Your task to perform on an android device: What's the news this month? Image 0: 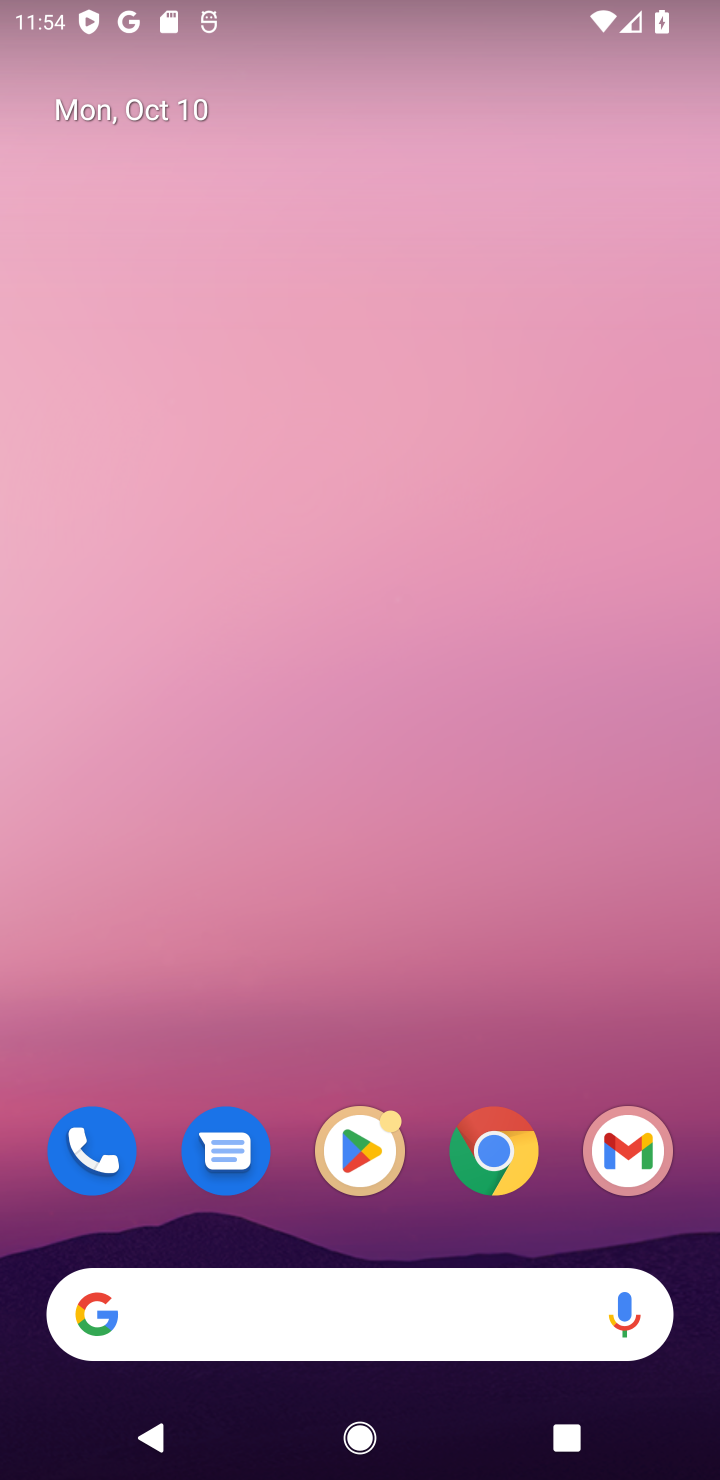
Step 0: click (317, 1300)
Your task to perform on an android device: What's the news this month? Image 1: 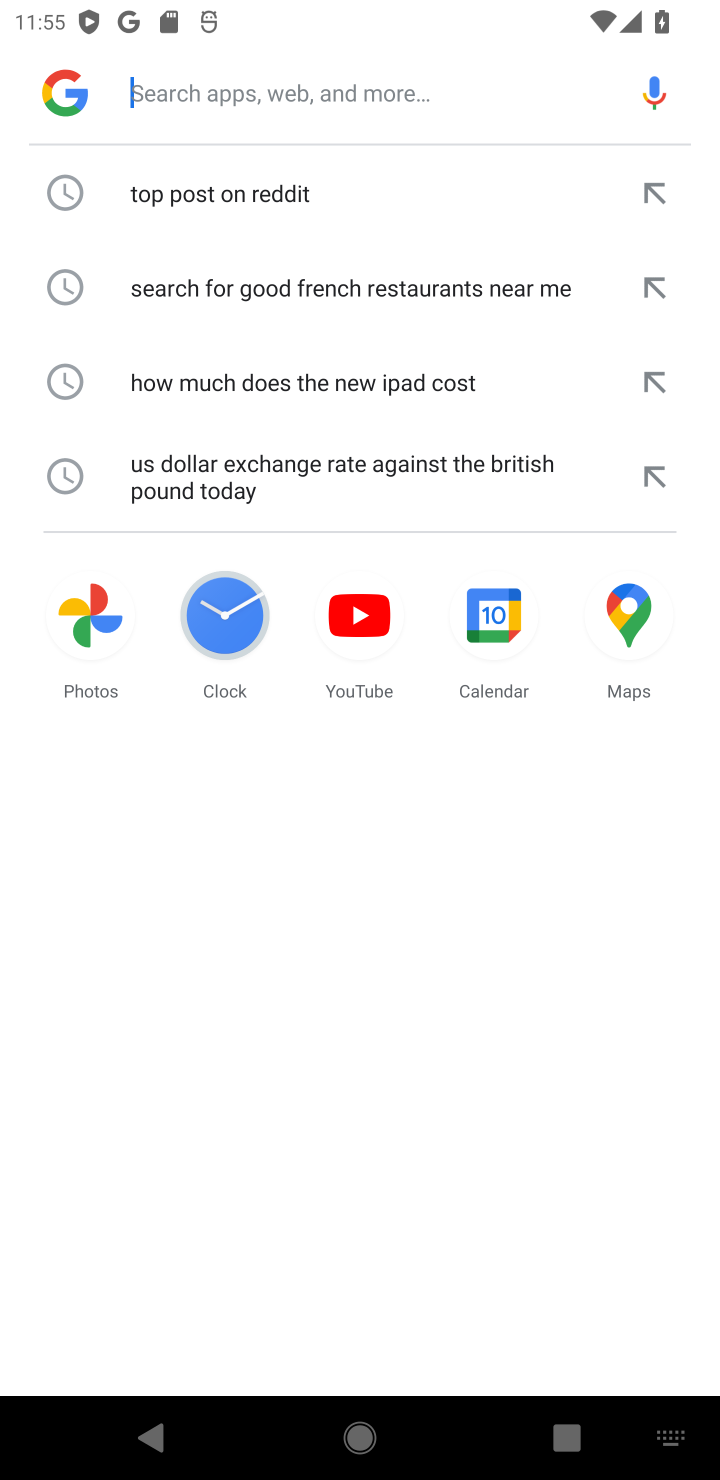
Step 1: type "news this month?"
Your task to perform on an android device: What's the news this month? Image 2: 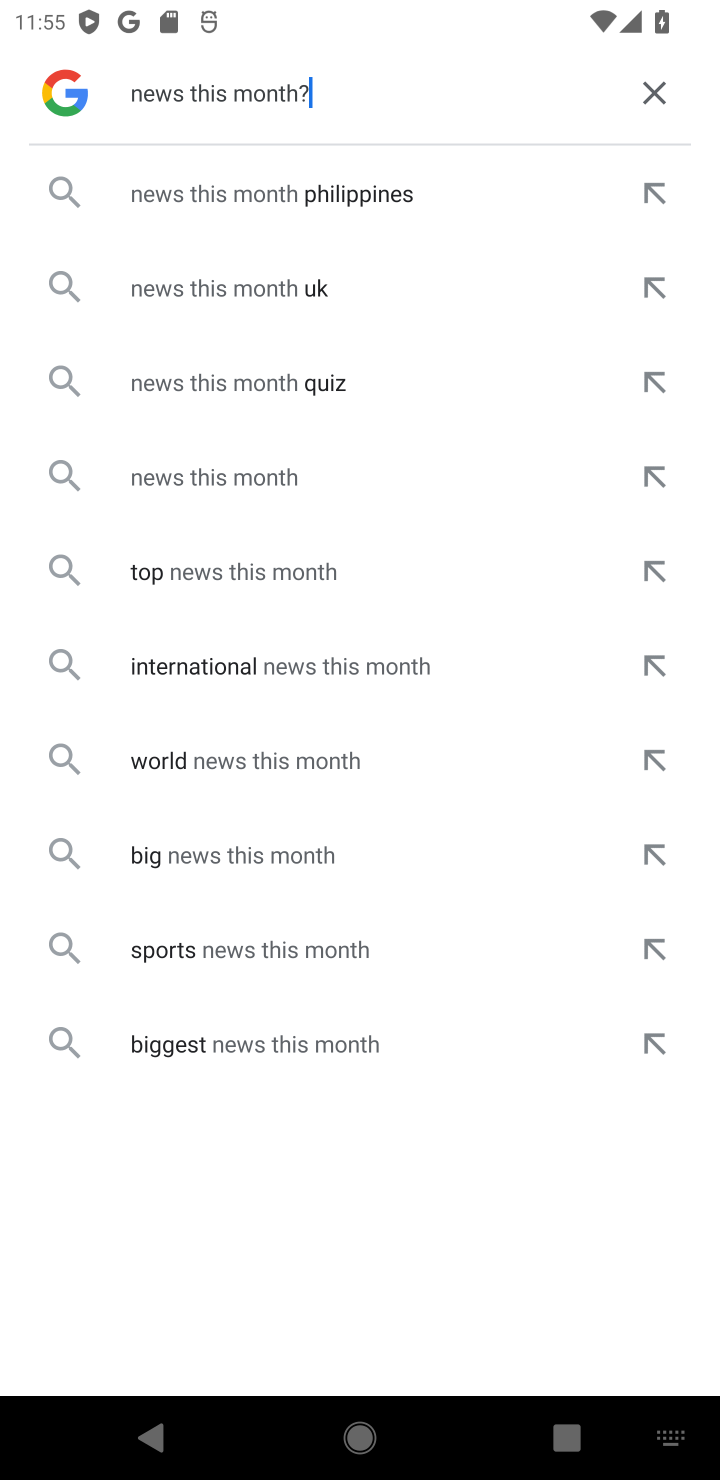
Step 2: click (198, 481)
Your task to perform on an android device: What's the news this month? Image 3: 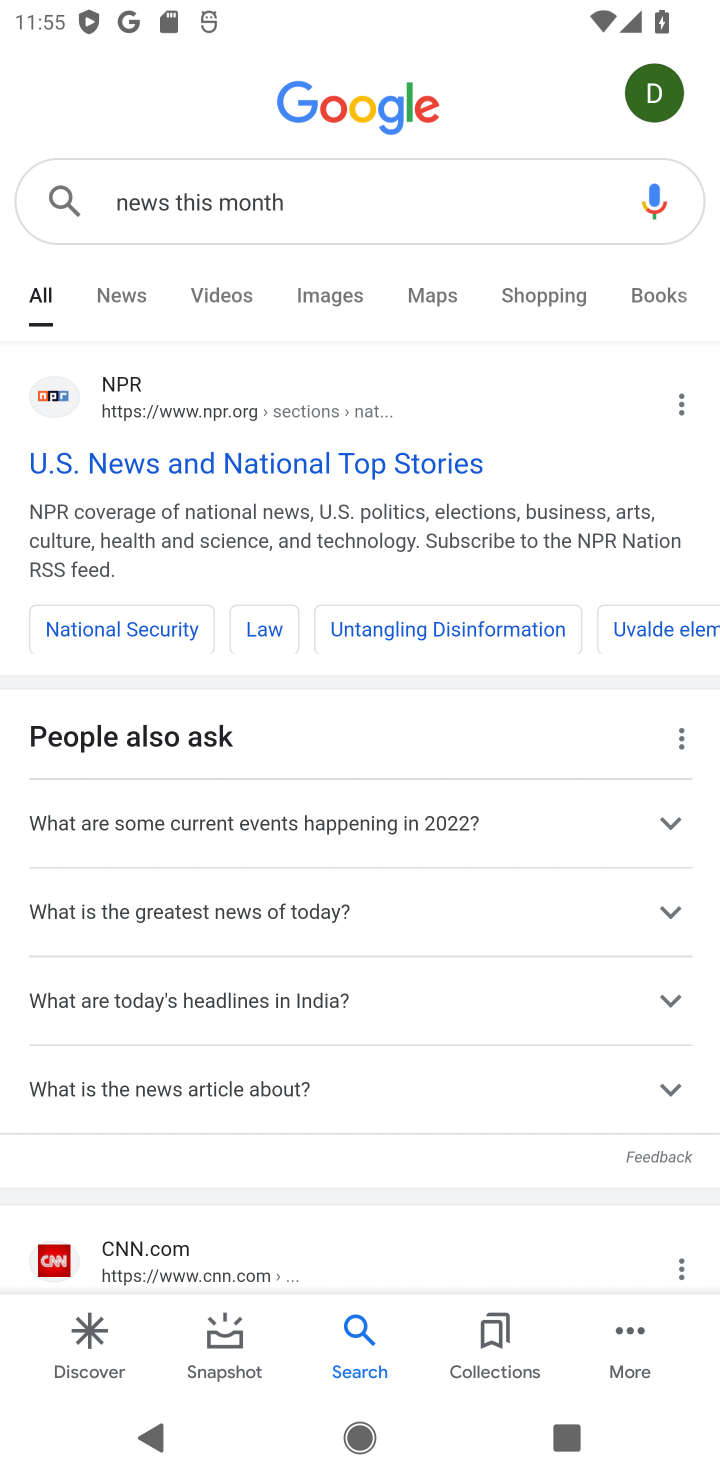
Step 3: click (223, 465)
Your task to perform on an android device: What's the news this month? Image 4: 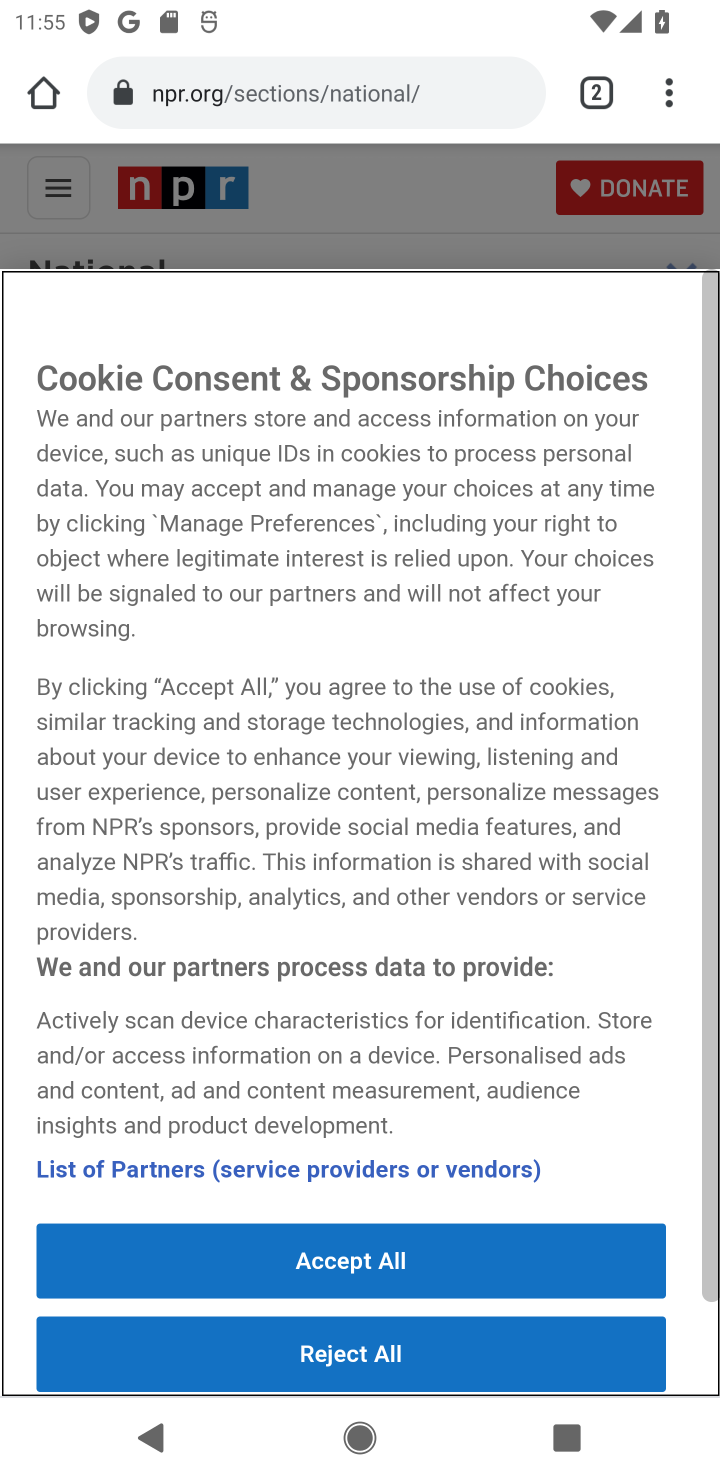
Step 4: drag from (176, 1119) to (281, 652)
Your task to perform on an android device: What's the news this month? Image 5: 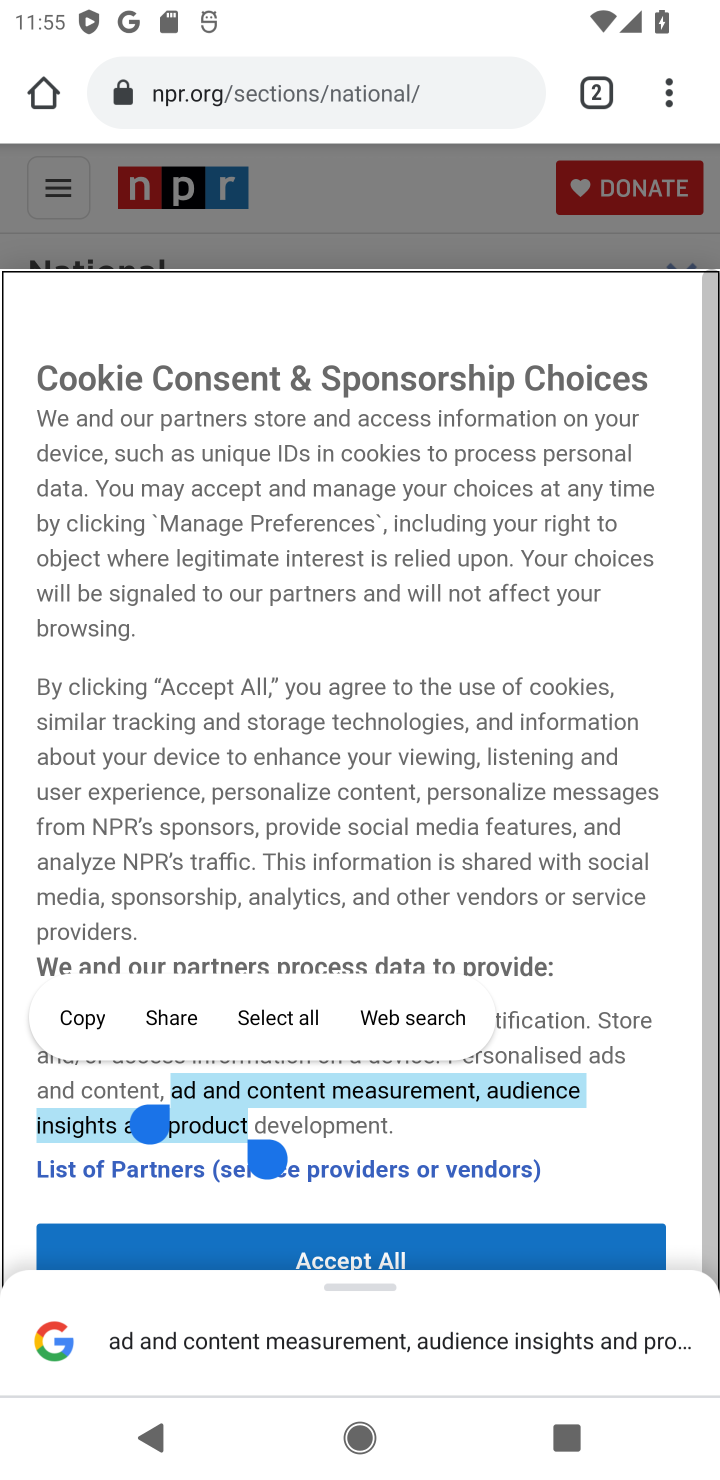
Step 5: click (305, 1258)
Your task to perform on an android device: What's the news this month? Image 6: 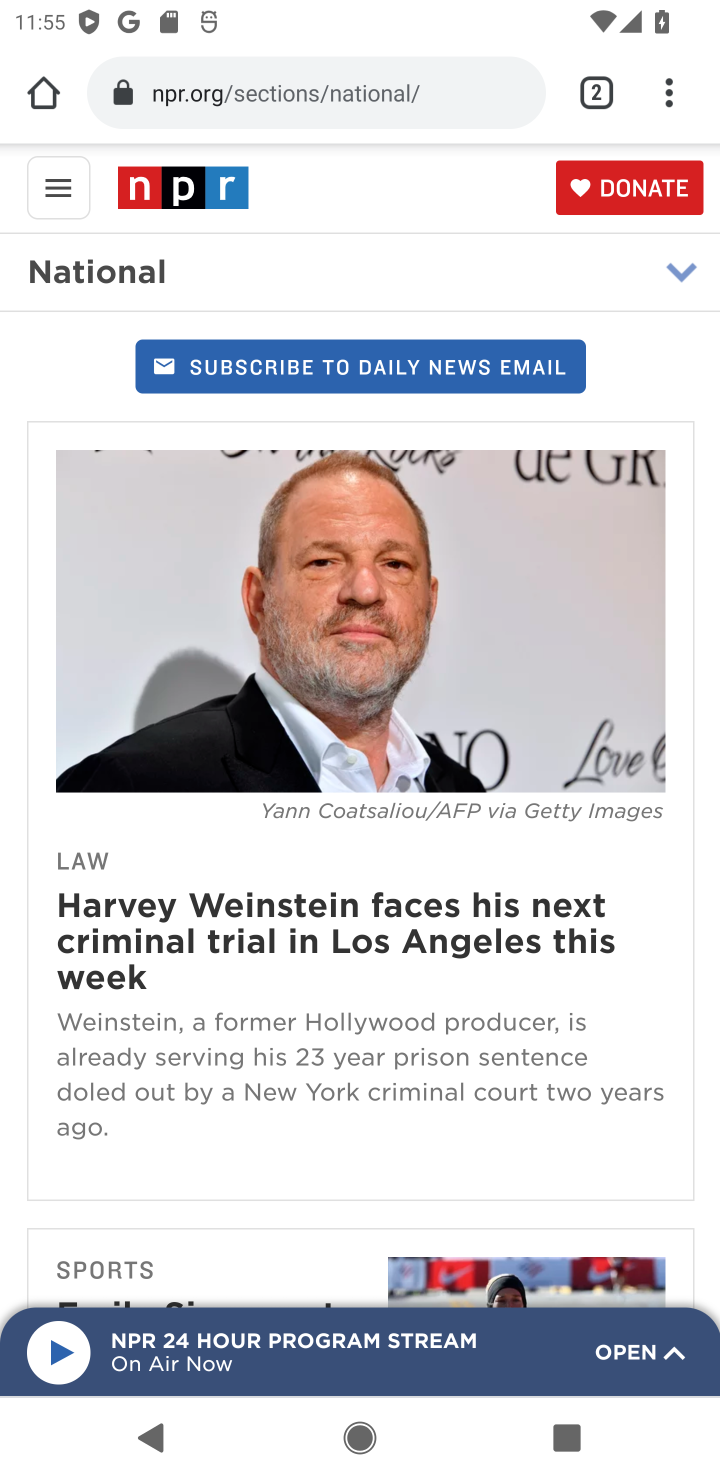
Step 6: task complete